Your task to perform on an android device: add a label to a message in the gmail app Image 0: 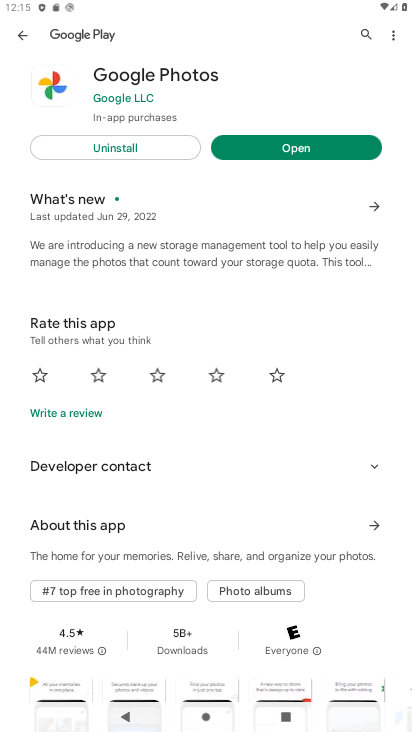
Step 0: press home button
Your task to perform on an android device: add a label to a message in the gmail app Image 1: 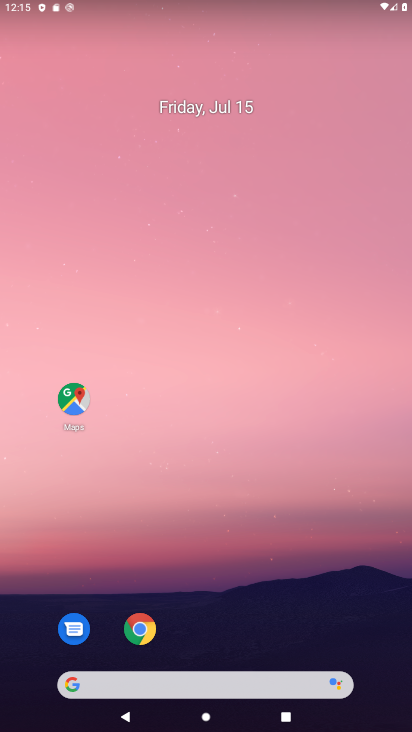
Step 1: drag from (367, 645) to (248, 101)
Your task to perform on an android device: add a label to a message in the gmail app Image 2: 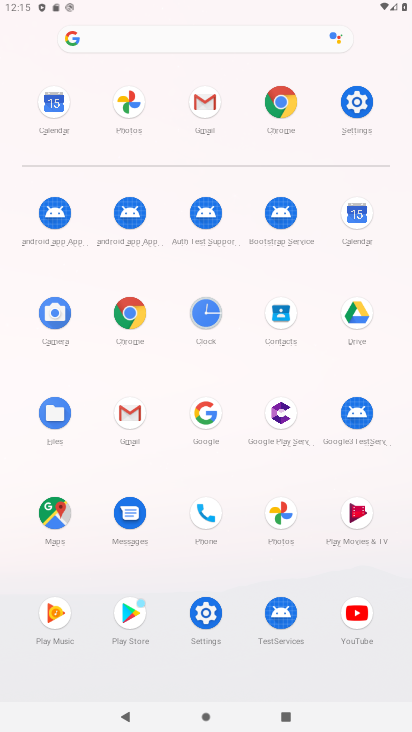
Step 2: click (201, 99)
Your task to perform on an android device: add a label to a message in the gmail app Image 3: 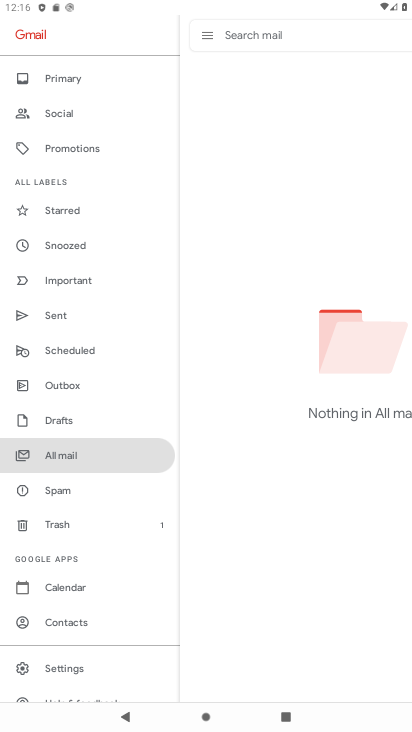
Step 3: task complete